Your task to perform on an android device: What's the weather? Image 0: 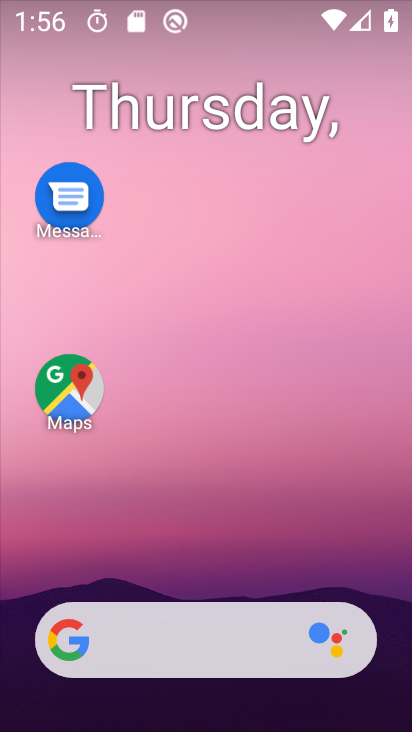
Step 0: drag from (149, 322) to (158, 104)
Your task to perform on an android device: What's the weather? Image 1: 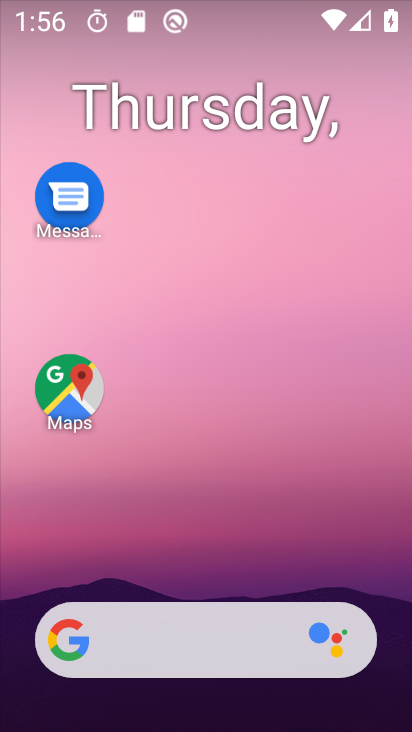
Step 1: drag from (178, 523) to (178, 62)
Your task to perform on an android device: What's the weather? Image 2: 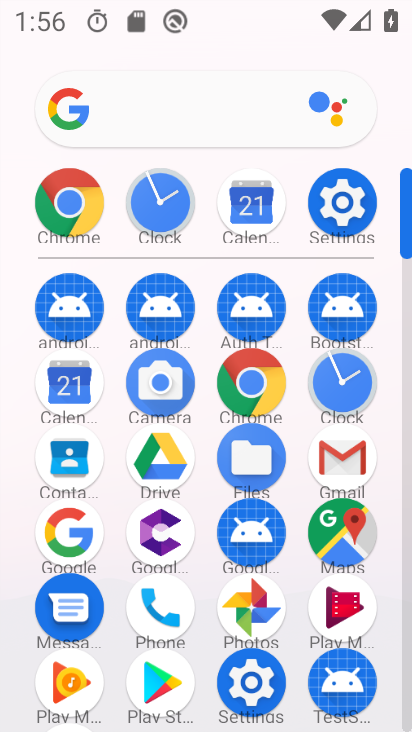
Step 2: click (64, 203)
Your task to perform on an android device: What's the weather? Image 3: 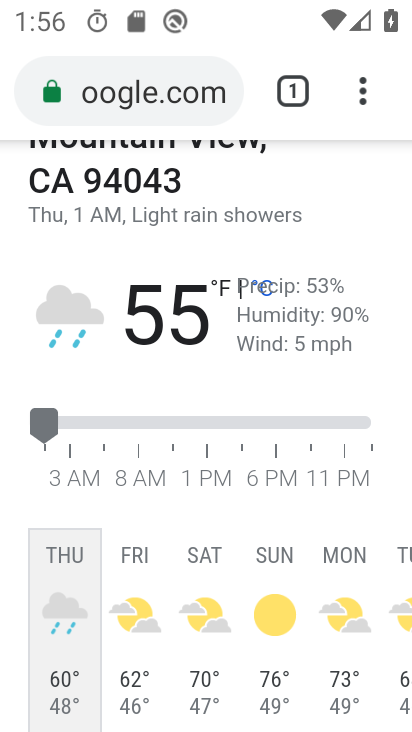
Step 3: click (150, 98)
Your task to perform on an android device: What's the weather? Image 4: 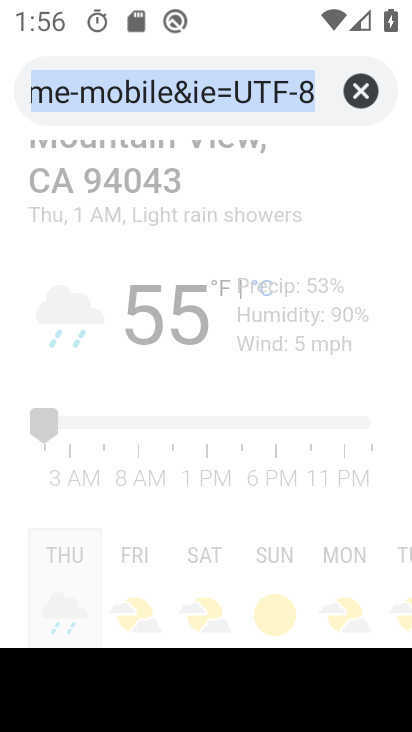
Step 4: type "weather"
Your task to perform on an android device: What's the weather? Image 5: 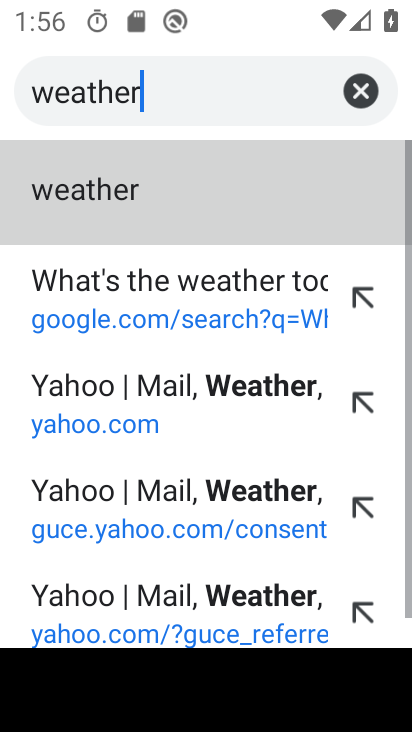
Step 5: click (115, 206)
Your task to perform on an android device: What's the weather? Image 6: 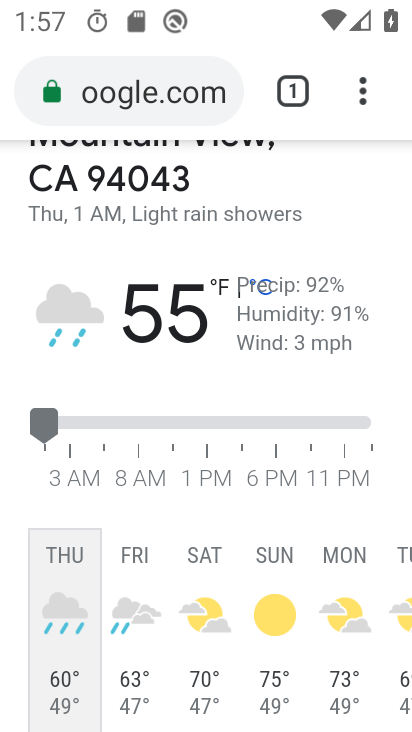
Step 6: task complete